Your task to perform on an android device: turn on data saver in the chrome app Image 0: 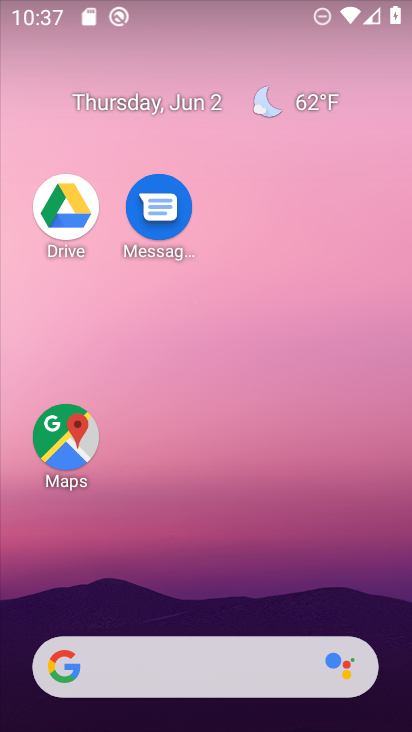
Step 0: drag from (210, 644) to (193, 19)
Your task to perform on an android device: turn on data saver in the chrome app Image 1: 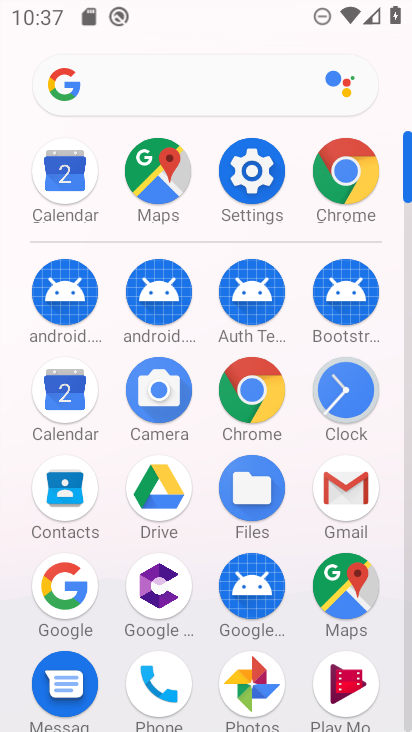
Step 1: click (265, 396)
Your task to perform on an android device: turn on data saver in the chrome app Image 2: 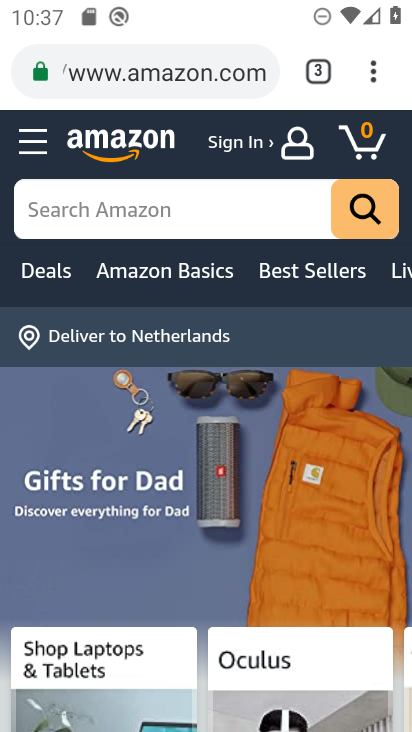
Step 2: click (367, 58)
Your task to perform on an android device: turn on data saver in the chrome app Image 3: 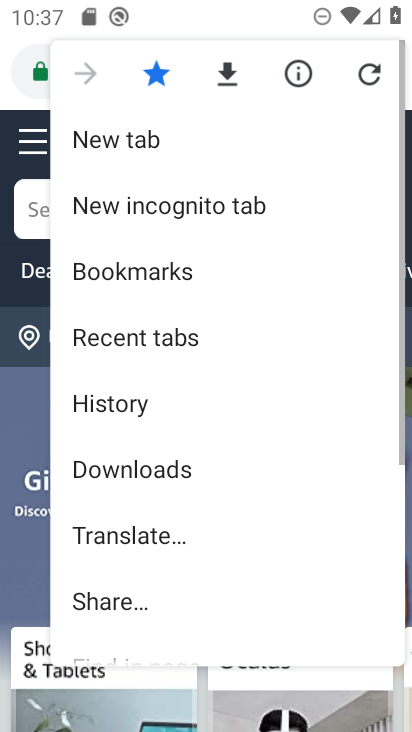
Step 3: drag from (249, 560) to (246, 70)
Your task to perform on an android device: turn on data saver in the chrome app Image 4: 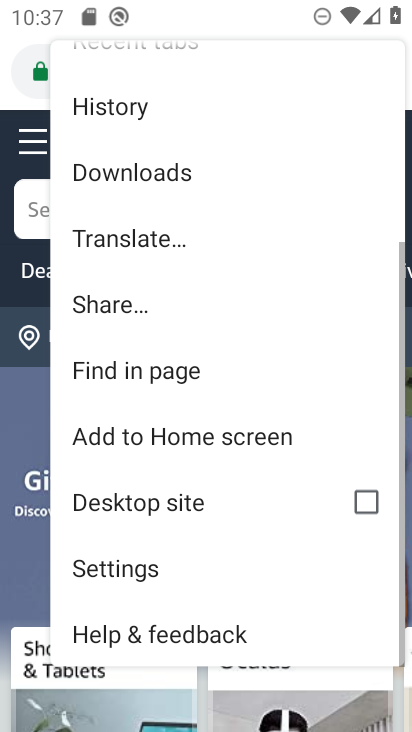
Step 4: click (179, 558)
Your task to perform on an android device: turn on data saver in the chrome app Image 5: 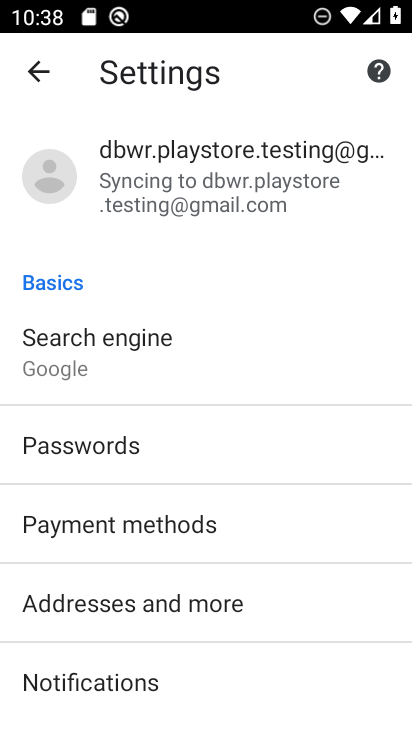
Step 5: drag from (185, 412) to (190, 20)
Your task to perform on an android device: turn on data saver in the chrome app Image 6: 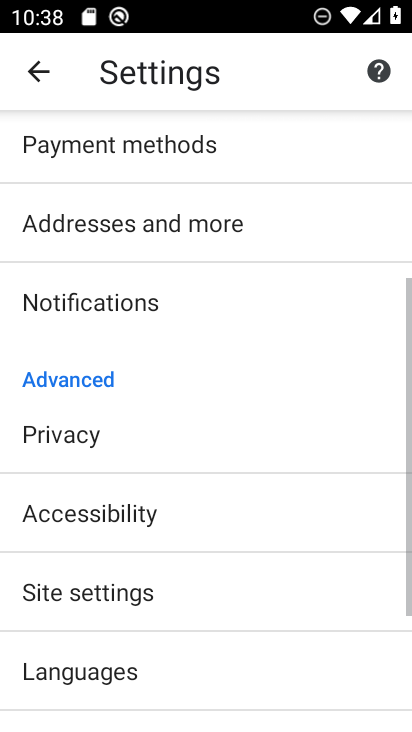
Step 6: drag from (206, 660) to (127, 103)
Your task to perform on an android device: turn on data saver in the chrome app Image 7: 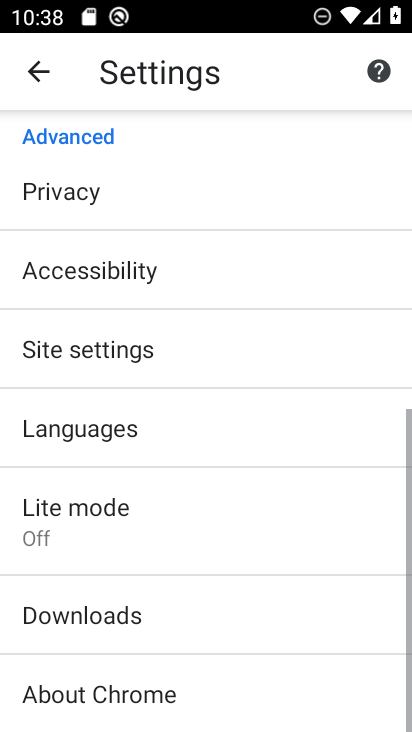
Step 7: click (92, 534)
Your task to perform on an android device: turn on data saver in the chrome app Image 8: 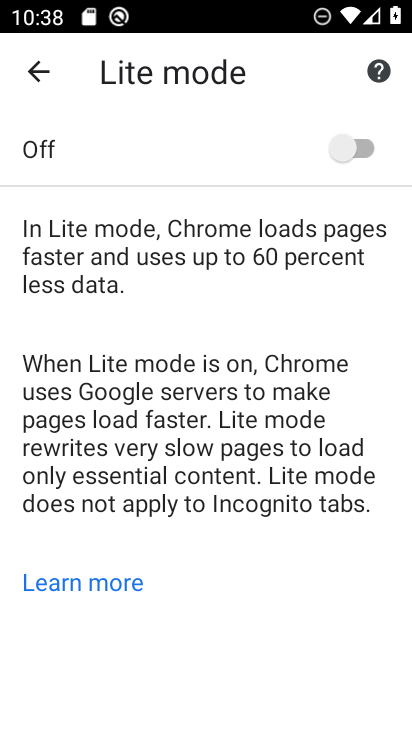
Step 8: click (341, 151)
Your task to perform on an android device: turn on data saver in the chrome app Image 9: 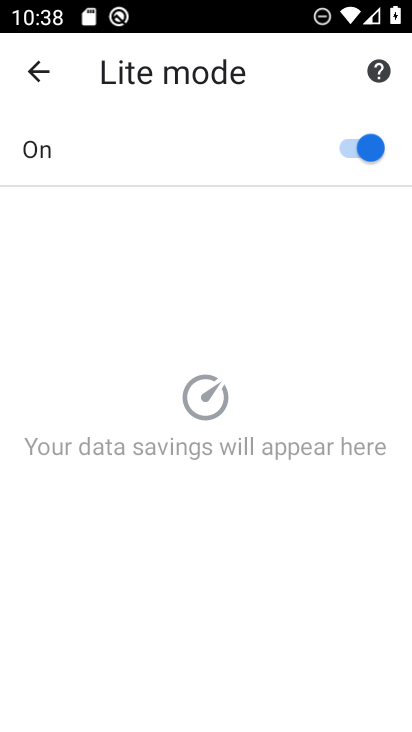
Step 9: task complete